Your task to perform on an android device: turn on showing notifications on the lock screen Image 0: 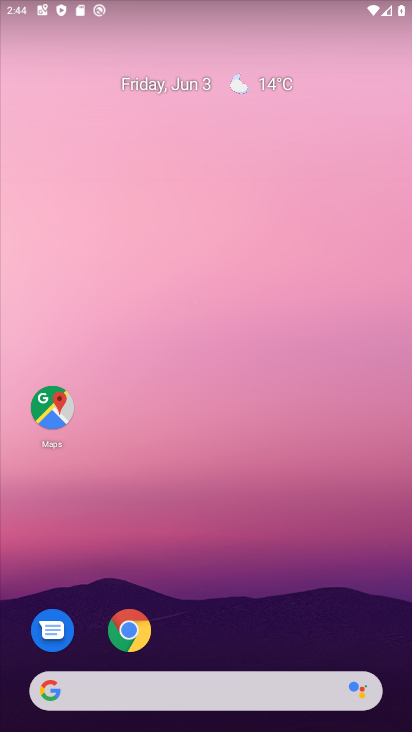
Step 0: drag from (295, 627) to (187, 165)
Your task to perform on an android device: turn on showing notifications on the lock screen Image 1: 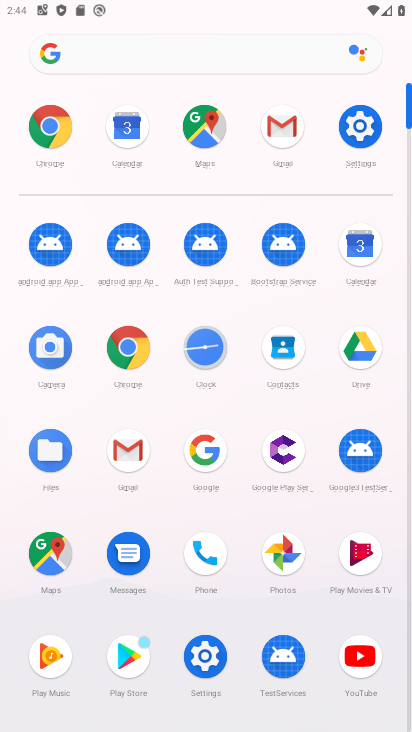
Step 1: click (371, 130)
Your task to perform on an android device: turn on showing notifications on the lock screen Image 2: 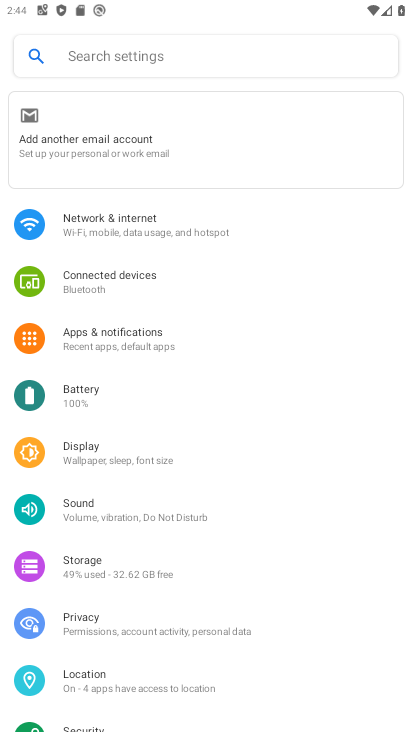
Step 2: click (180, 338)
Your task to perform on an android device: turn on showing notifications on the lock screen Image 3: 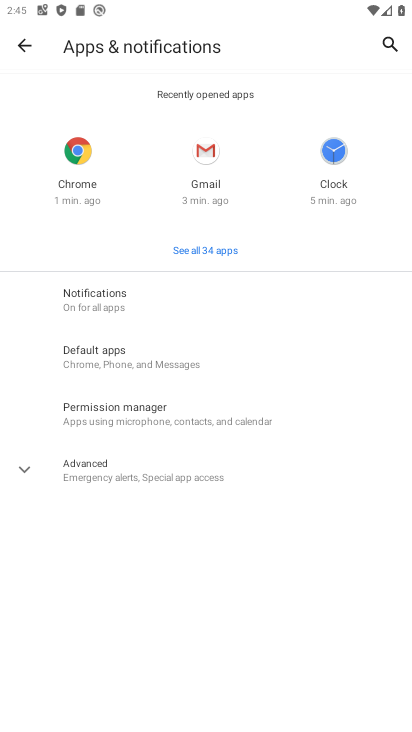
Step 3: click (107, 304)
Your task to perform on an android device: turn on showing notifications on the lock screen Image 4: 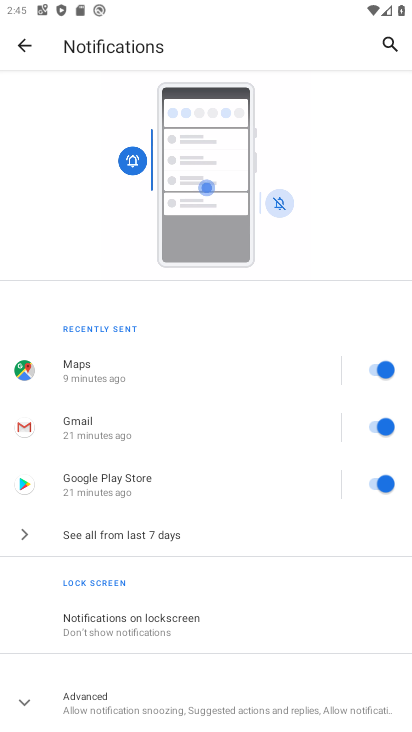
Step 4: click (143, 621)
Your task to perform on an android device: turn on showing notifications on the lock screen Image 5: 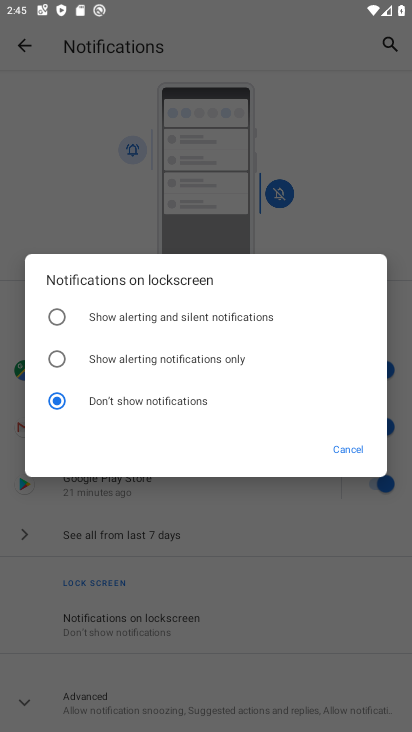
Step 5: click (173, 326)
Your task to perform on an android device: turn on showing notifications on the lock screen Image 6: 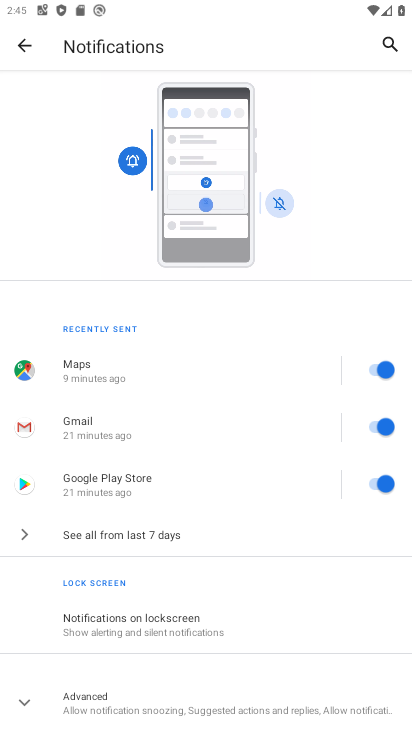
Step 6: task complete